Your task to perform on an android device: Search for pizza restaurants on Maps Image 0: 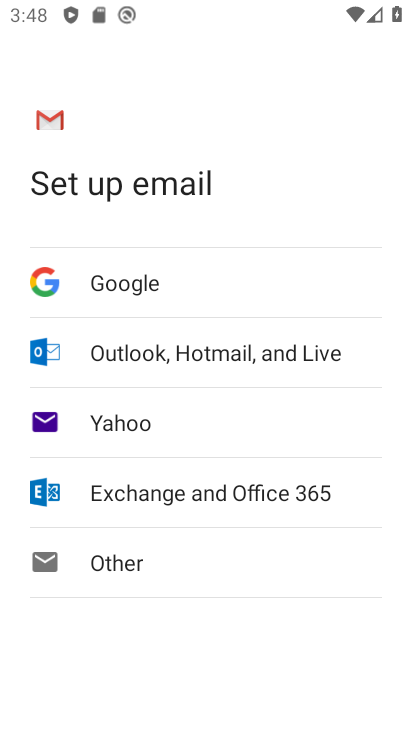
Step 0: press home button
Your task to perform on an android device: Search for pizza restaurants on Maps Image 1: 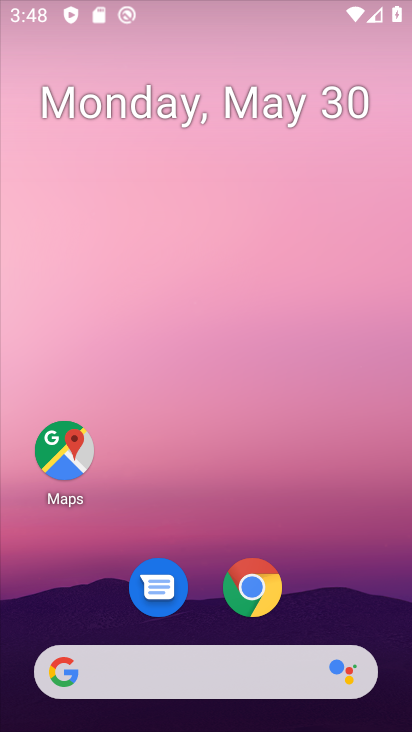
Step 1: drag from (248, 604) to (236, 123)
Your task to perform on an android device: Search for pizza restaurants on Maps Image 2: 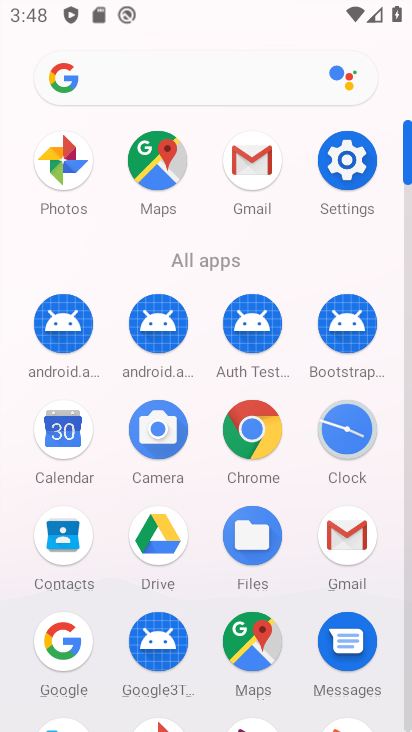
Step 2: click (167, 161)
Your task to perform on an android device: Search for pizza restaurants on Maps Image 3: 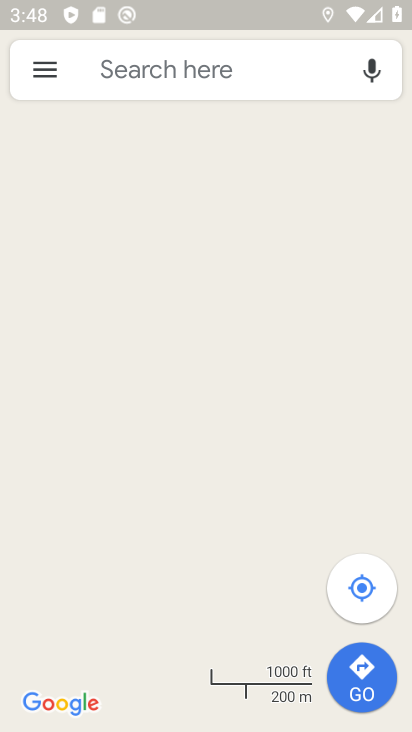
Step 3: click (183, 83)
Your task to perform on an android device: Search for pizza restaurants on Maps Image 4: 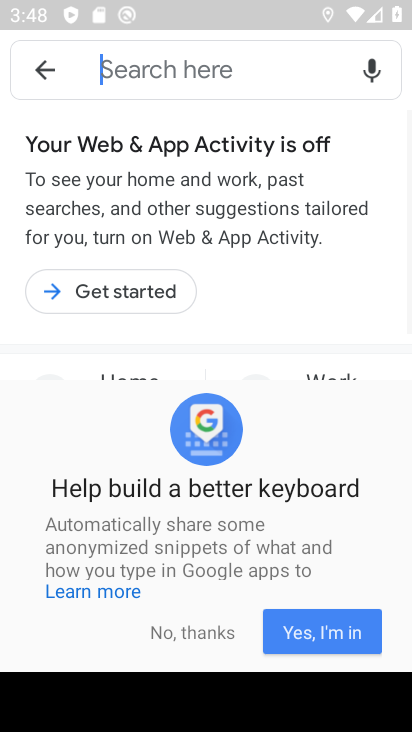
Step 4: click (220, 642)
Your task to perform on an android device: Search for pizza restaurants on Maps Image 5: 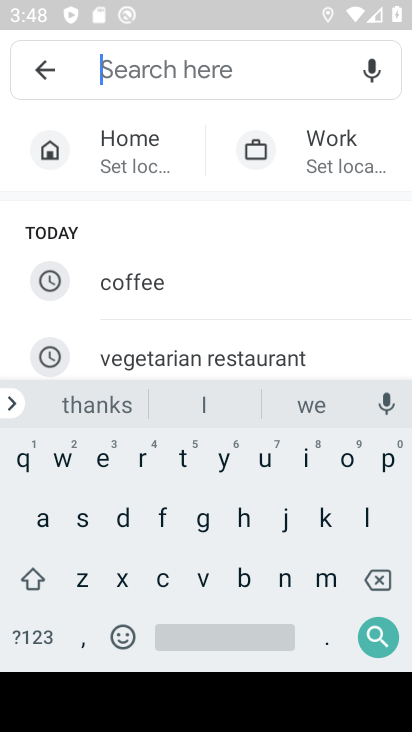
Step 5: click (401, 454)
Your task to perform on an android device: Search for pizza restaurants on Maps Image 6: 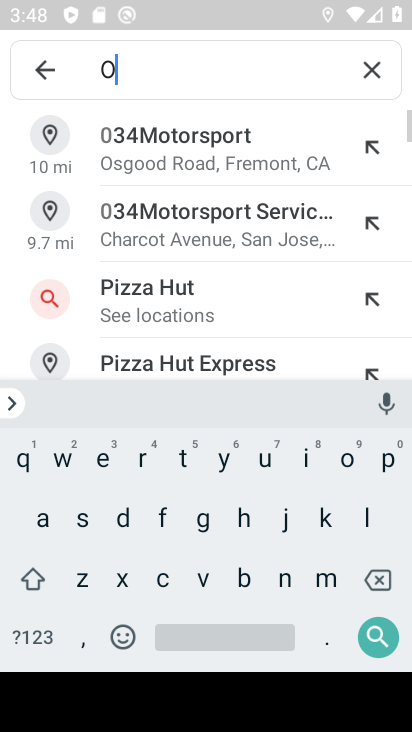
Step 6: click (368, 569)
Your task to perform on an android device: Search for pizza restaurants on Maps Image 7: 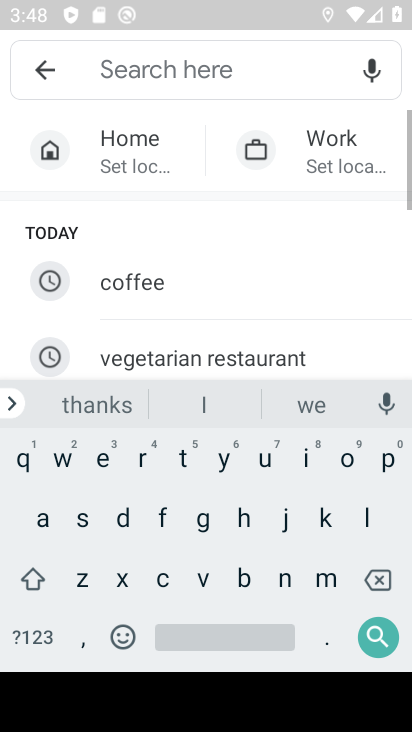
Step 7: click (381, 458)
Your task to perform on an android device: Search for pizza restaurants on Maps Image 8: 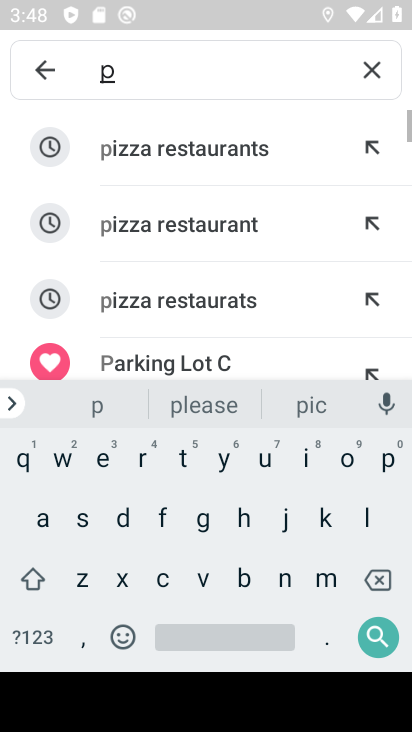
Step 8: click (147, 149)
Your task to perform on an android device: Search for pizza restaurants on Maps Image 9: 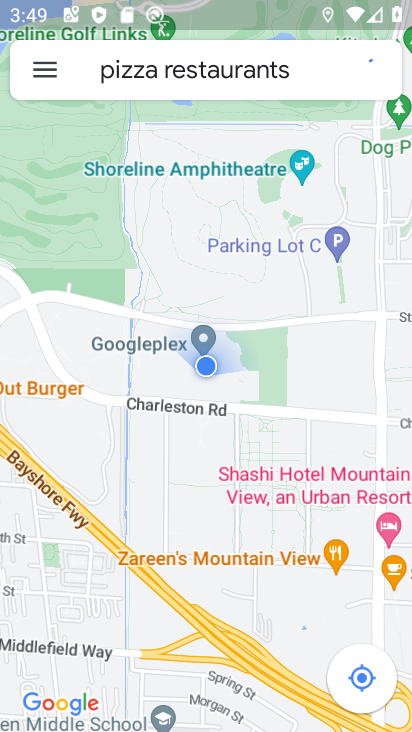
Step 9: click (261, 341)
Your task to perform on an android device: Search for pizza restaurants on Maps Image 10: 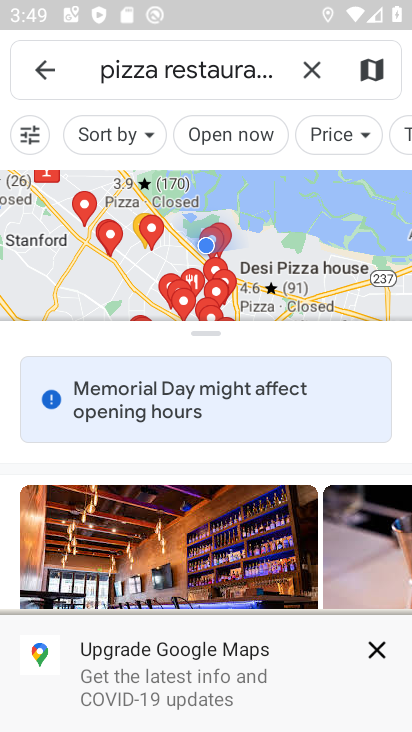
Step 10: task complete